Your task to perform on an android device: change alarm snooze length Image 0: 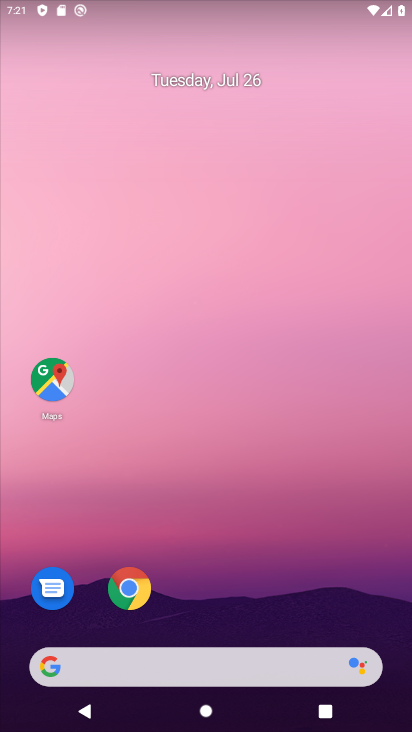
Step 0: drag from (175, 454) to (204, 160)
Your task to perform on an android device: change alarm snooze length Image 1: 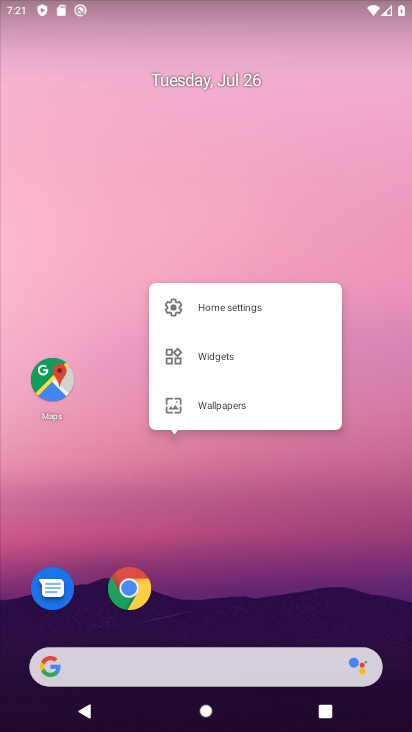
Step 1: click (308, 476)
Your task to perform on an android device: change alarm snooze length Image 2: 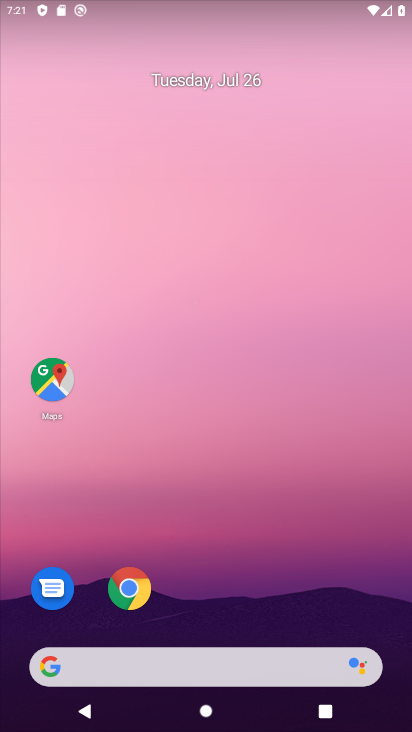
Step 2: drag from (300, 527) to (306, 305)
Your task to perform on an android device: change alarm snooze length Image 3: 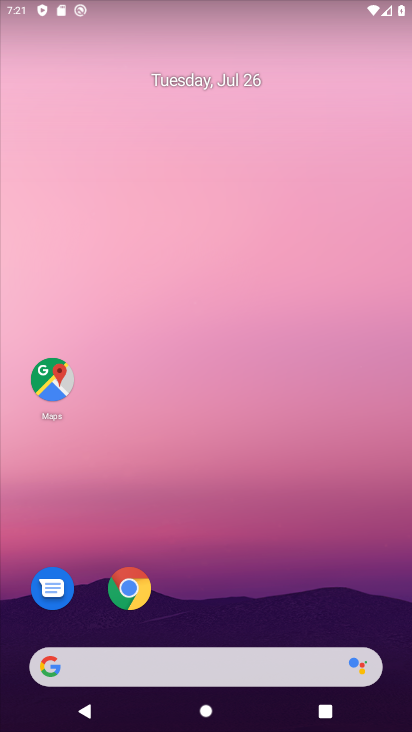
Step 3: drag from (246, 402) to (288, 153)
Your task to perform on an android device: change alarm snooze length Image 4: 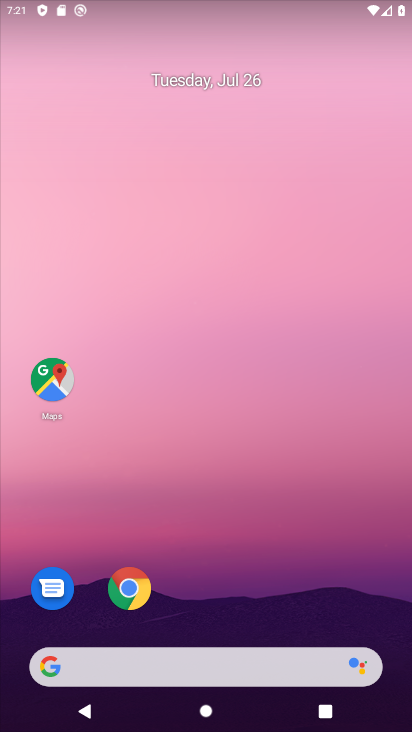
Step 4: drag from (266, 536) to (372, 37)
Your task to perform on an android device: change alarm snooze length Image 5: 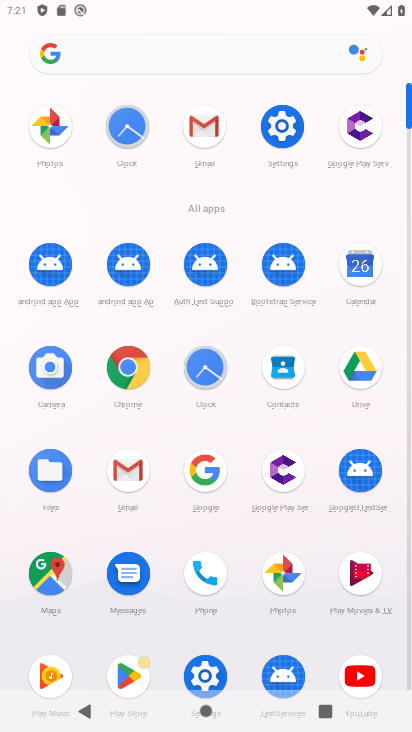
Step 5: click (206, 381)
Your task to perform on an android device: change alarm snooze length Image 6: 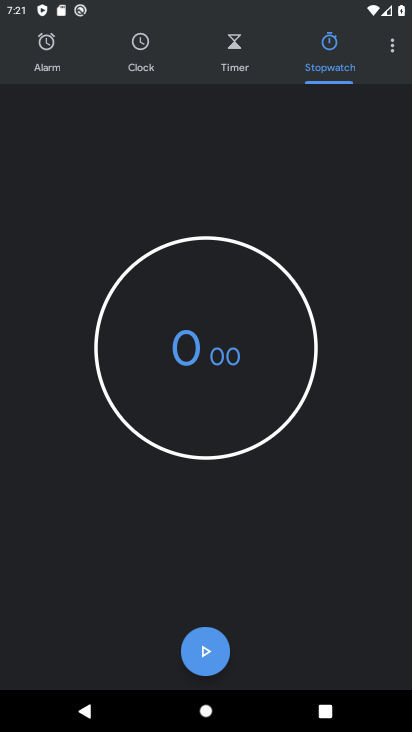
Step 6: click (392, 42)
Your task to perform on an android device: change alarm snooze length Image 7: 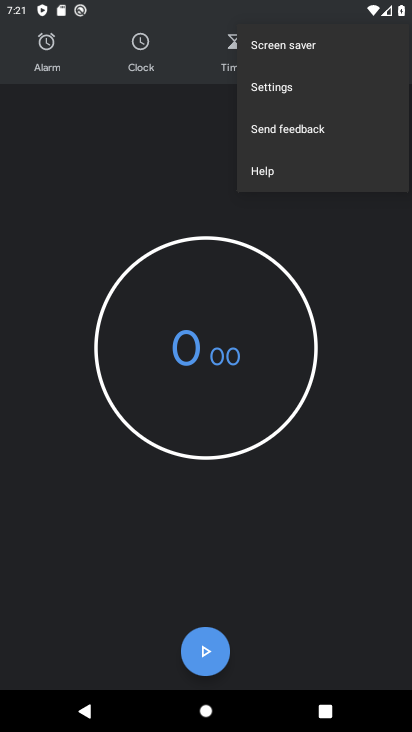
Step 7: click (279, 84)
Your task to perform on an android device: change alarm snooze length Image 8: 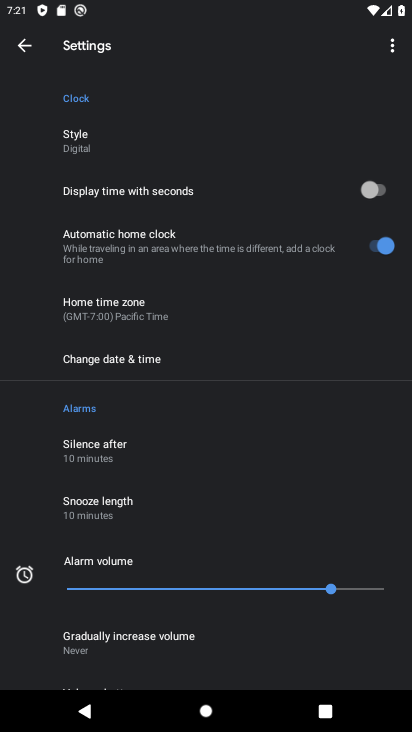
Step 8: click (107, 508)
Your task to perform on an android device: change alarm snooze length Image 9: 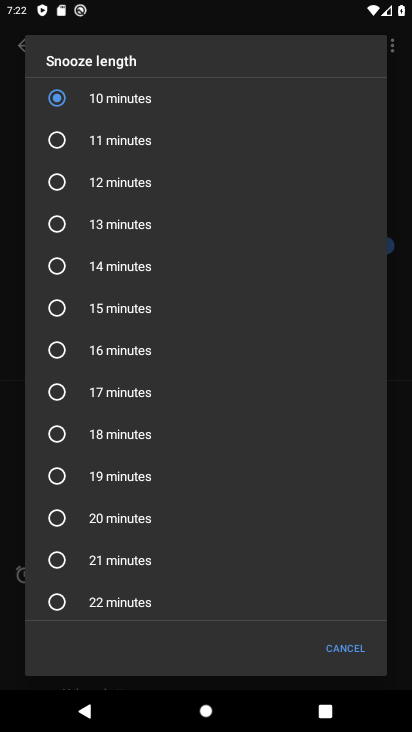
Step 9: click (90, 518)
Your task to perform on an android device: change alarm snooze length Image 10: 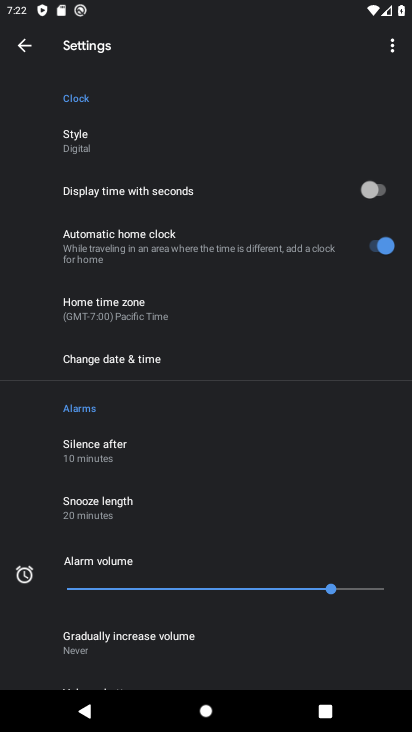
Step 10: task complete